Your task to perform on an android device: Show me the alarms in the clock app Image 0: 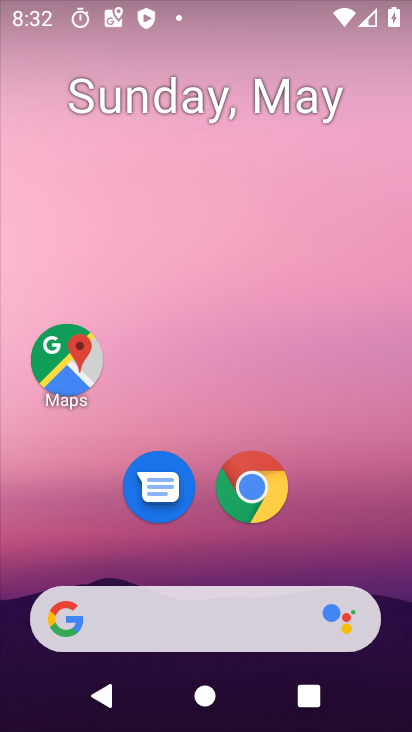
Step 0: press home button
Your task to perform on an android device: Show me the alarms in the clock app Image 1: 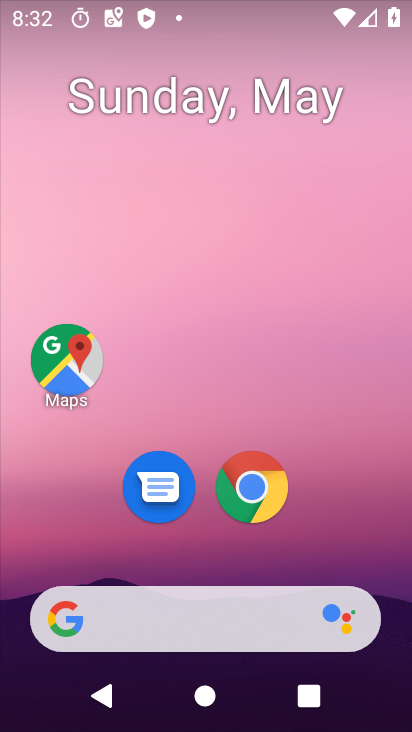
Step 1: drag from (91, 518) to (284, 149)
Your task to perform on an android device: Show me the alarms in the clock app Image 2: 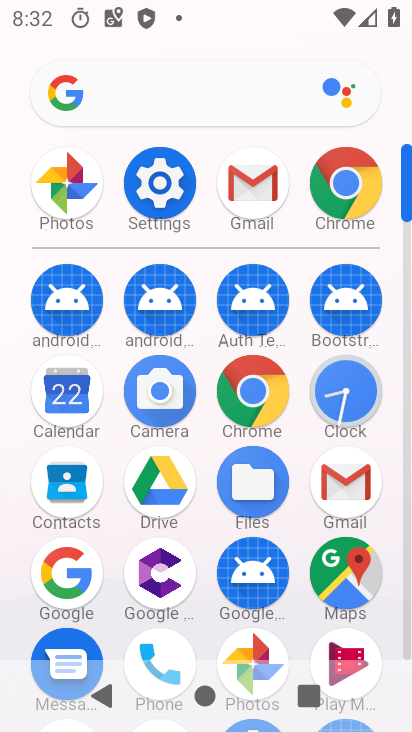
Step 2: click (349, 389)
Your task to perform on an android device: Show me the alarms in the clock app Image 3: 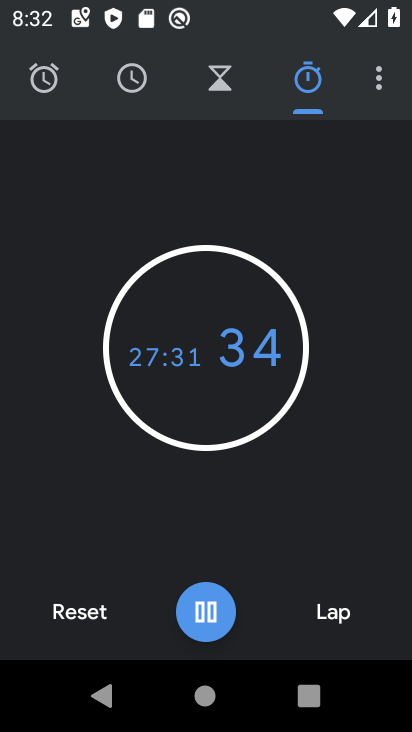
Step 3: click (42, 89)
Your task to perform on an android device: Show me the alarms in the clock app Image 4: 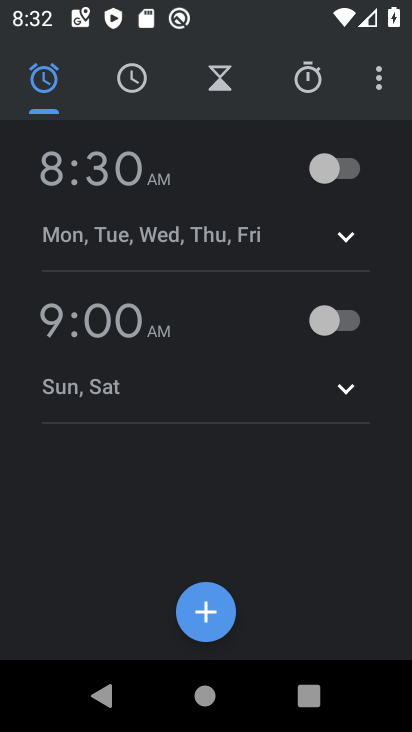
Step 4: task complete